Your task to perform on an android device: Go to notification settings Image 0: 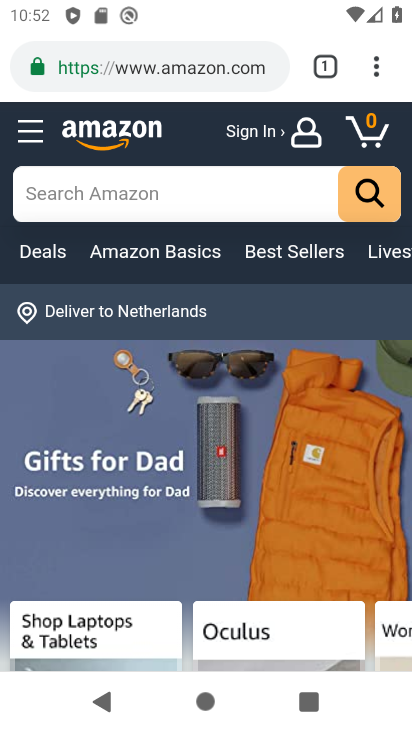
Step 0: press home button
Your task to perform on an android device: Go to notification settings Image 1: 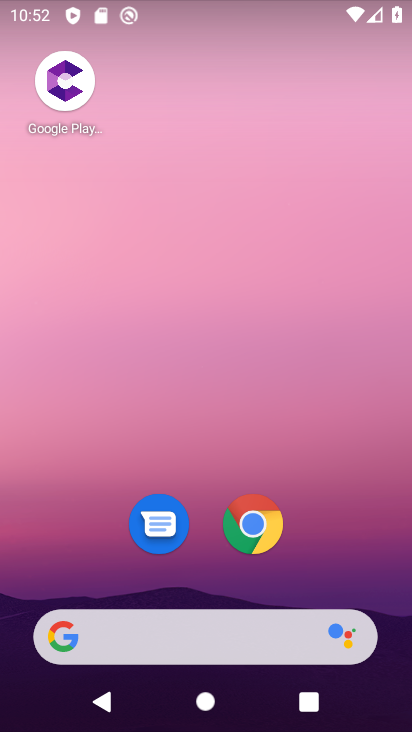
Step 1: drag from (310, 529) to (320, 10)
Your task to perform on an android device: Go to notification settings Image 2: 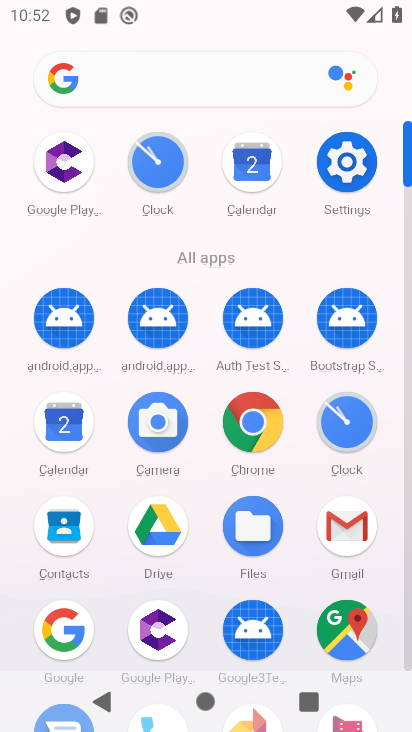
Step 2: click (348, 160)
Your task to perform on an android device: Go to notification settings Image 3: 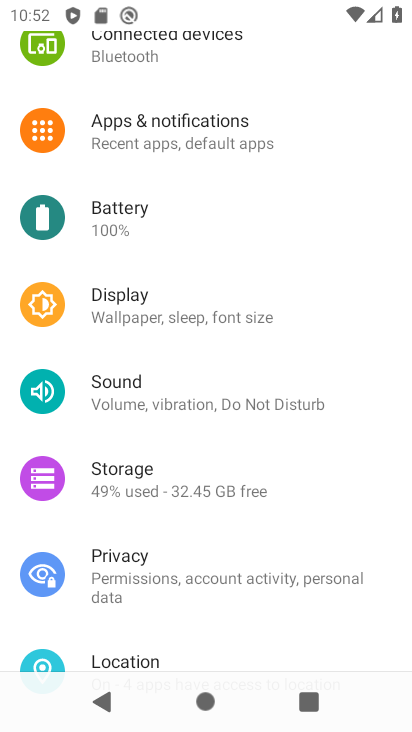
Step 3: drag from (206, 201) to (231, 537)
Your task to perform on an android device: Go to notification settings Image 4: 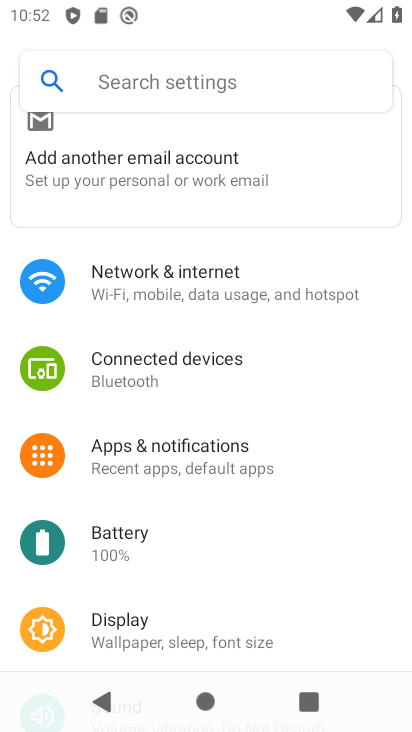
Step 4: click (244, 288)
Your task to perform on an android device: Go to notification settings Image 5: 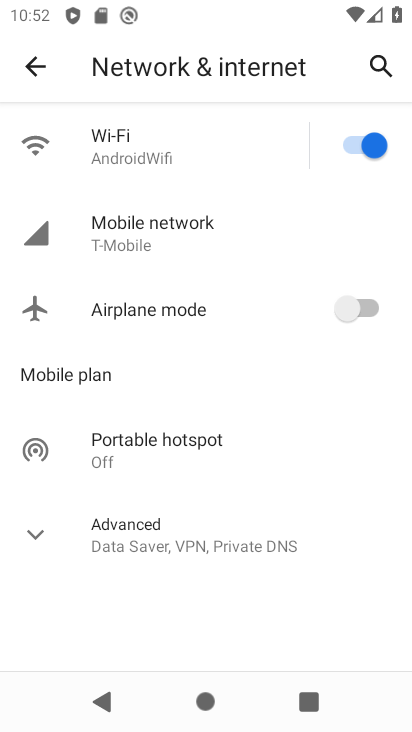
Step 5: click (42, 66)
Your task to perform on an android device: Go to notification settings Image 6: 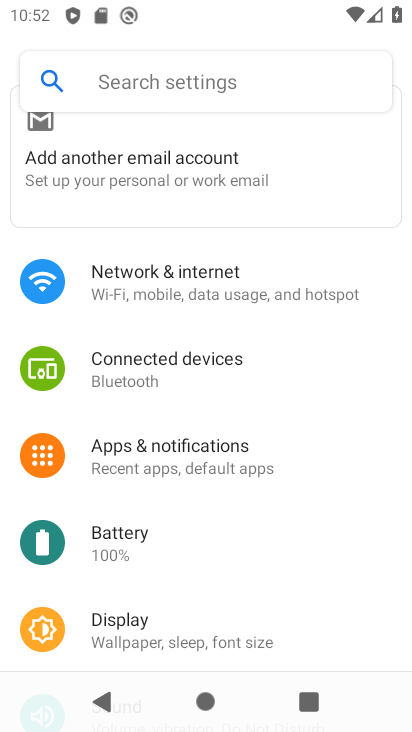
Step 6: click (200, 446)
Your task to perform on an android device: Go to notification settings Image 7: 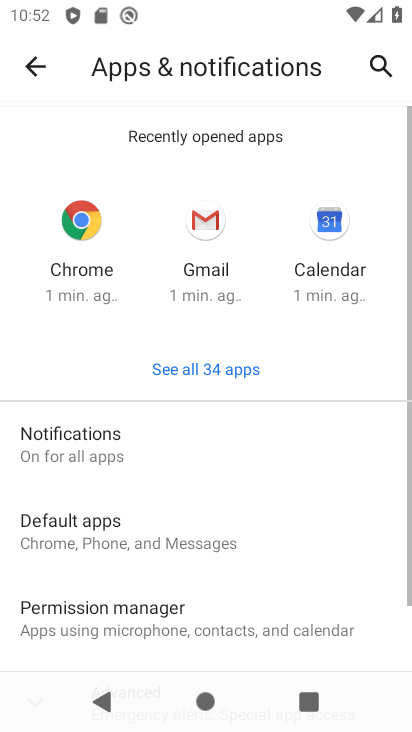
Step 7: click (197, 445)
Your task to perform on an android device: Go to notification settings Image 8: 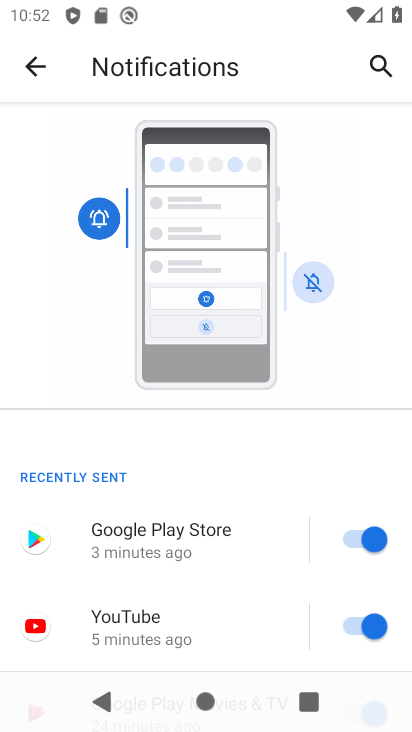
Step 8: task complete